Your task to perform on an android device: Go to CNN.com Image 0: 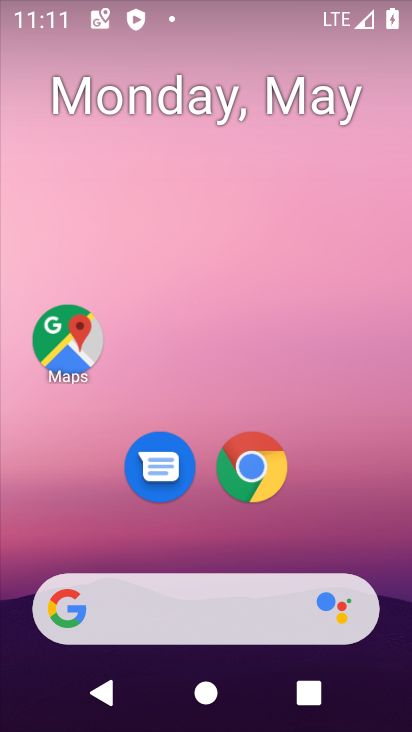
Step 0: click (252, 469)
Your task to perform on an android device: Go to CNN.com Image 1: 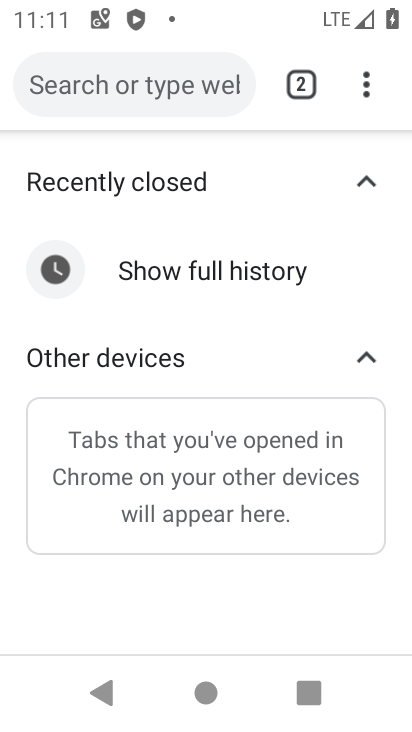
Step 1: click (161, 79)
Your task to perform on an android device: Go to CNN.com Image 2: 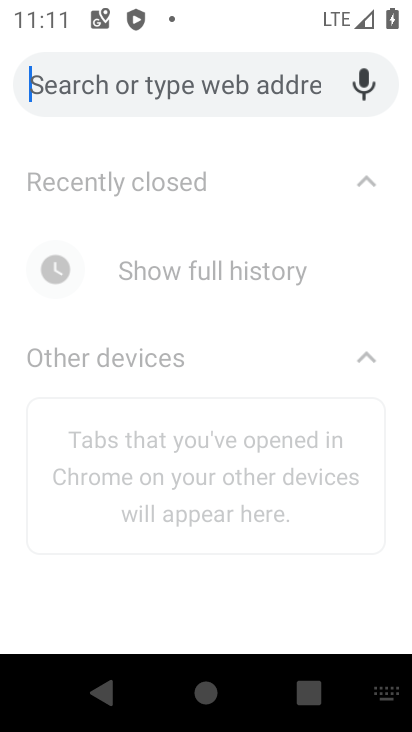
Step 2: type "CNN.com"
Your task to perform on an android device: Go to CNN.com Image 3: 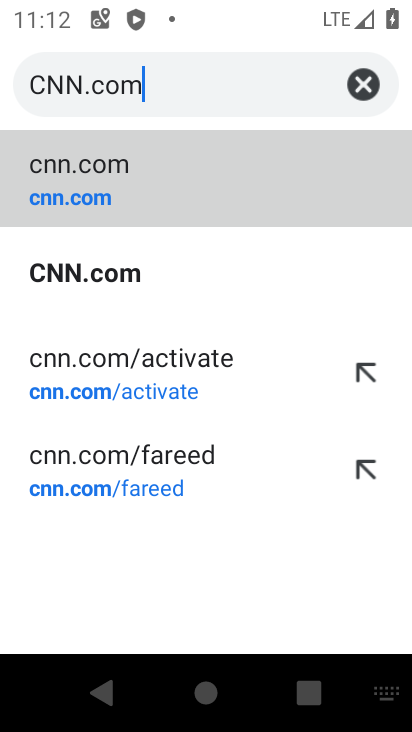
Step 3: click (54, 264)
Your task to perform on an android device: Go to CNN.com Image 4: 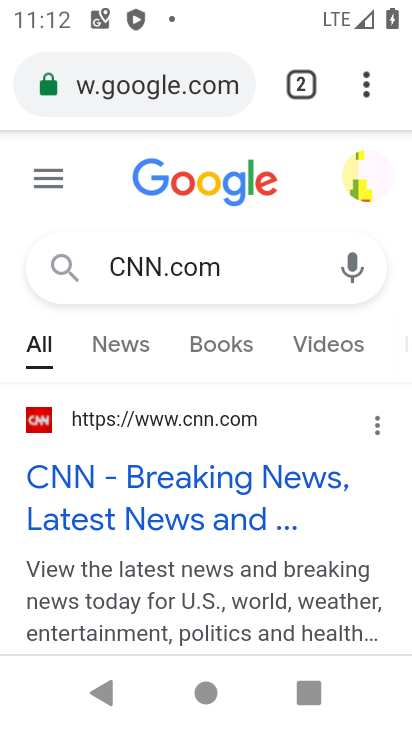
Step 4: task complete